Your task to perform on an android device: move an email to a new category in the gmail app Image 0: 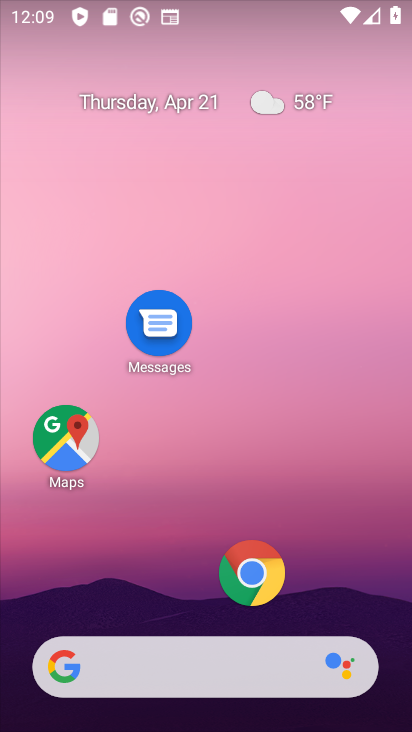
Step 0: drag from (157, 420) to (164, 56)
Your task to perform on an android device: move an email to a new category in the gmail app Image 1: 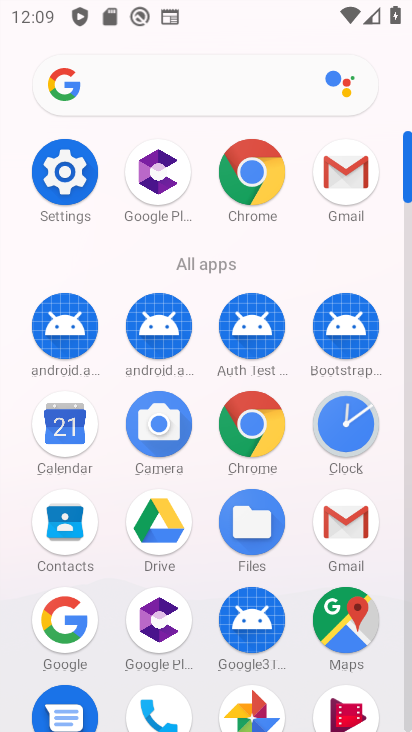
Step 1: click (343, 173)
Your task to perform on an android device: move an email to a new category in the gmail app Image 2: 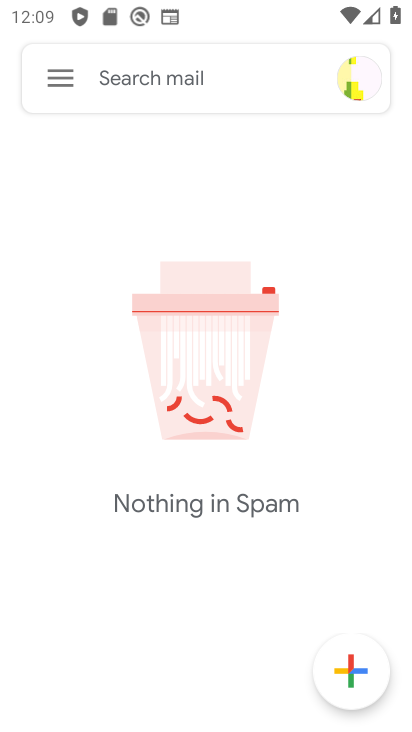
Step 2: click (53, 75)
Your task to perform on an android device: move an email to a new category in the gmail app Image 3: 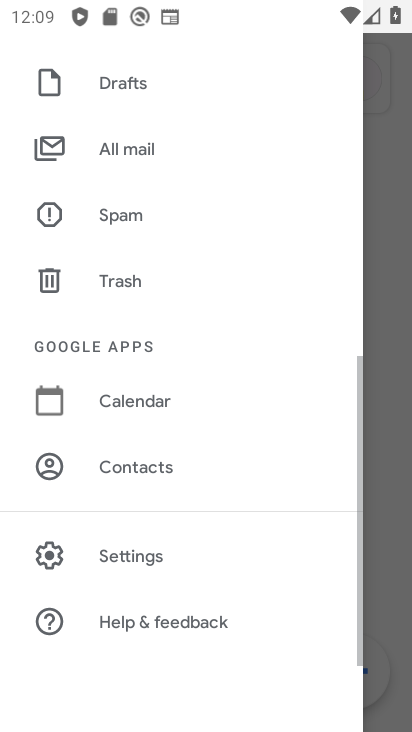
Step 3: click (176, 558)
Your task to perform on an android device: move an email to a new category in the gmail app Image 4: 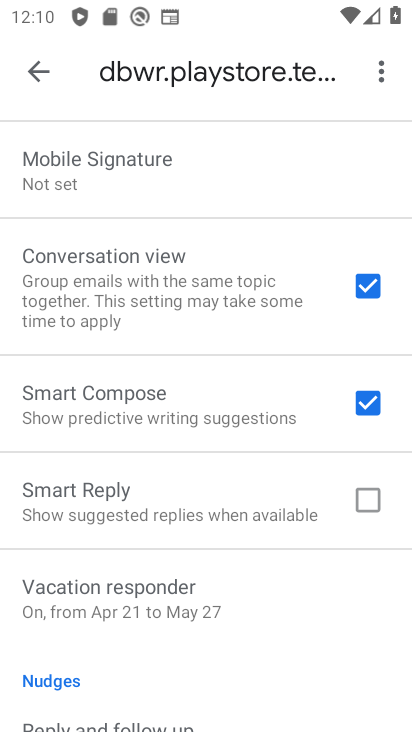
Step 4: drag from (195, 342) to (223, 533)
Your task to perform on an android device: move an email to a new category in the gmail app Image 5: 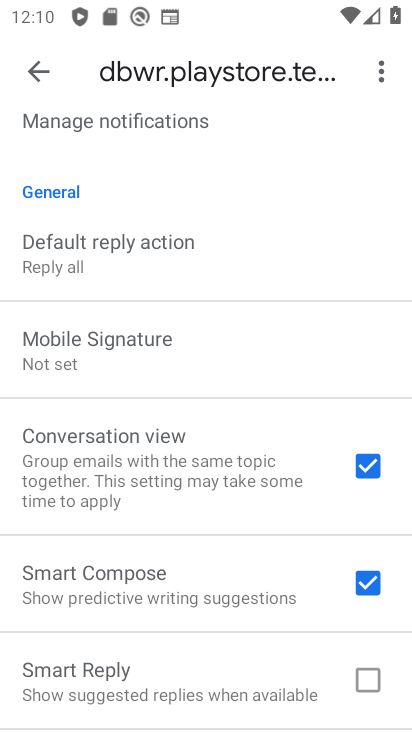
Step 5: drag from (143, 272) to (120, 573)
Your task to perform on an android device: move an email to a new category in the gmail app Image 6: 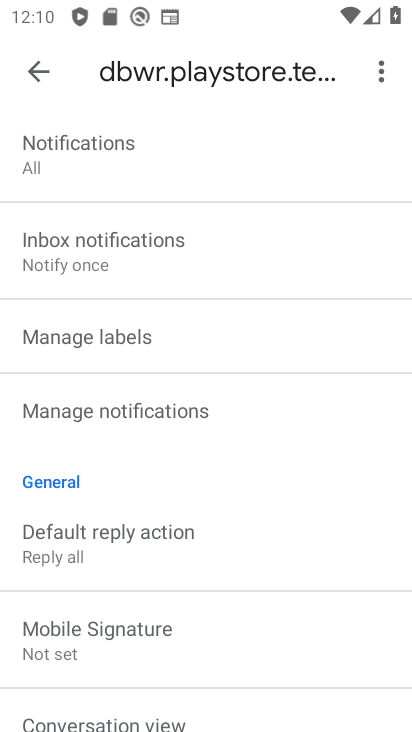
Step 6: drag from (134, 195) to (237, 591)
Your task to perform on an android device: move an email to a new category in the gmail app Image 7: 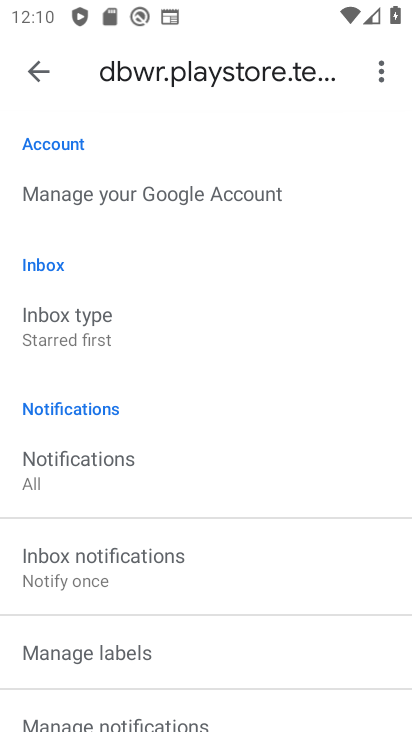
Step 7: drag from (31, 57) to (356, 42)
Your task to perform on an android device: move an email to a new category in the gmail app Image 8: 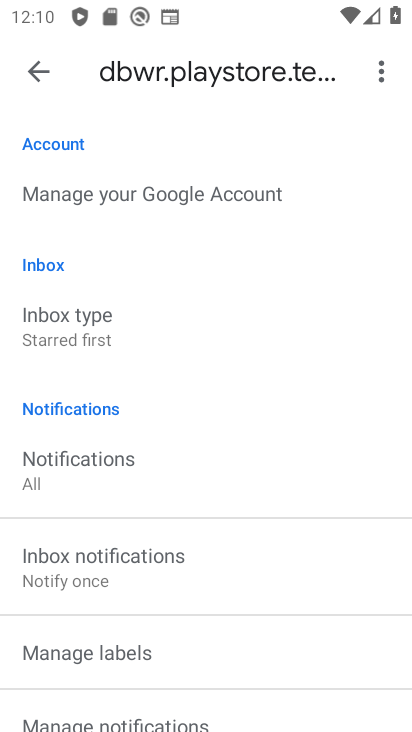
Step 8: press back button
Your task to perform on an android device: move an email to a new category in the gmail app Image 9: 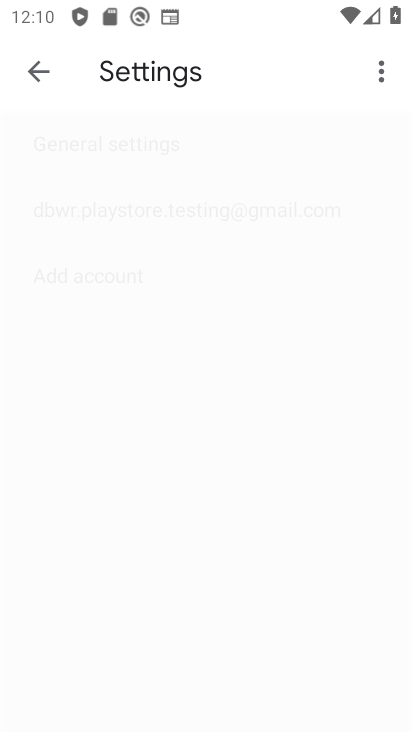
Step 9: drag from (356, 42) to (381, 210)
Your task to perform on an android device: move an email to a new category in the gmail app Image 10: 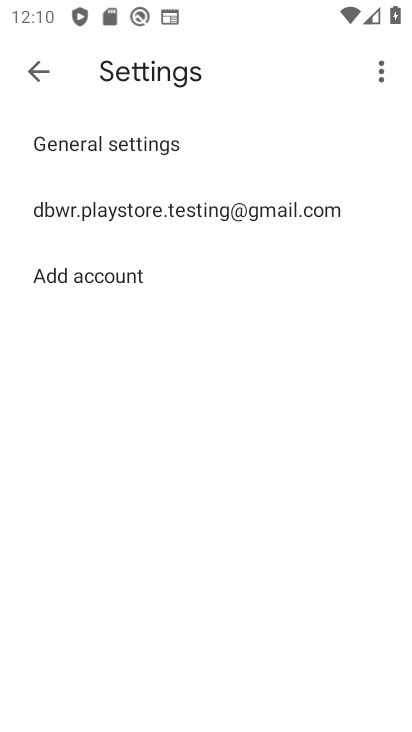
Step 10: press back button
Your task to perform on an android device: move an email to a new category in the gmail app Image 11: 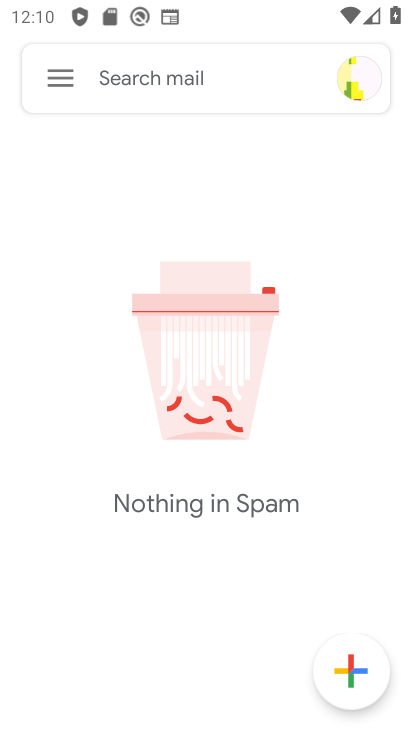
Step 11: click (27, 74)
Your task to perform on an android device: move an email to a new category in the gmail app Image 12: 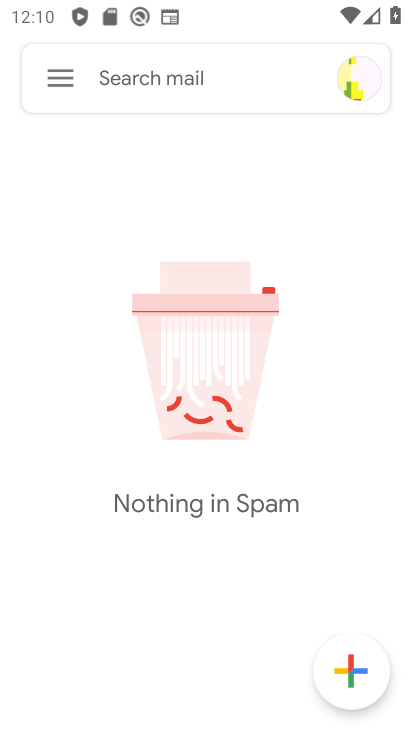
Step 12: click (52, 74)
Your task to perform on an android device: move an email to a new category in the gmail app Image 13: 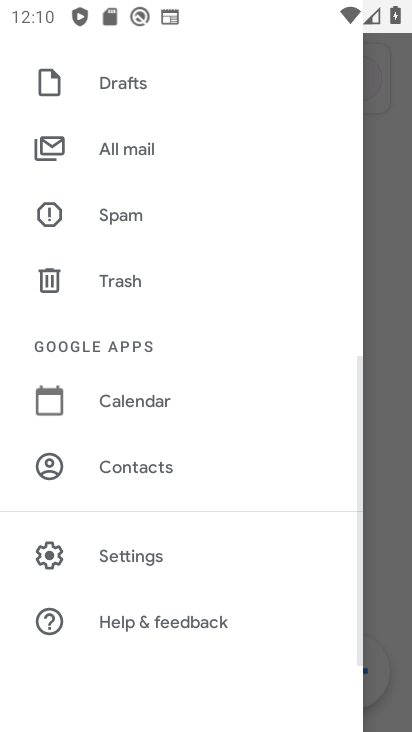
Step 13: click (132, 147)
Your task to perform on an android device: move an email to a new category in the gmail app Image 14: 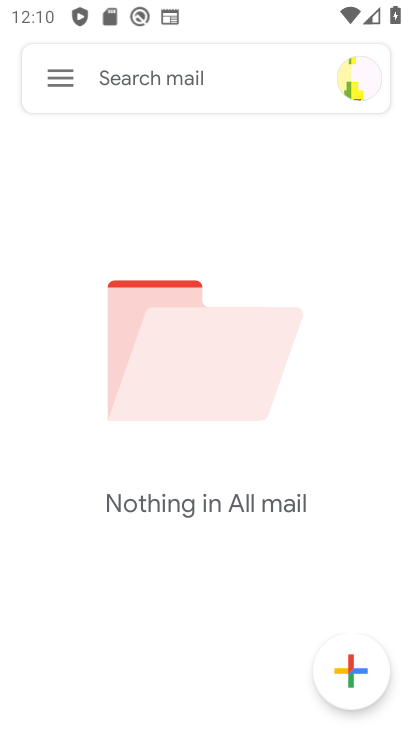
Step 14: task complete